Your task to perform on an android device: turn notification dots on Image 0: 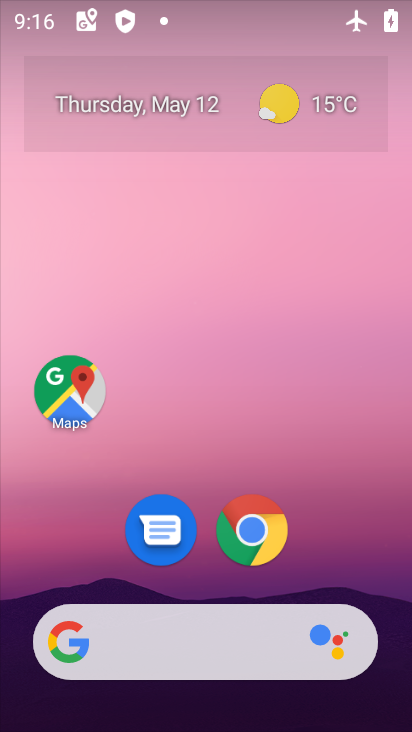
Step 0: drag from (218, 636) to (206, 92)
Your task to perform on an android device: turn notification dots on Image 1: 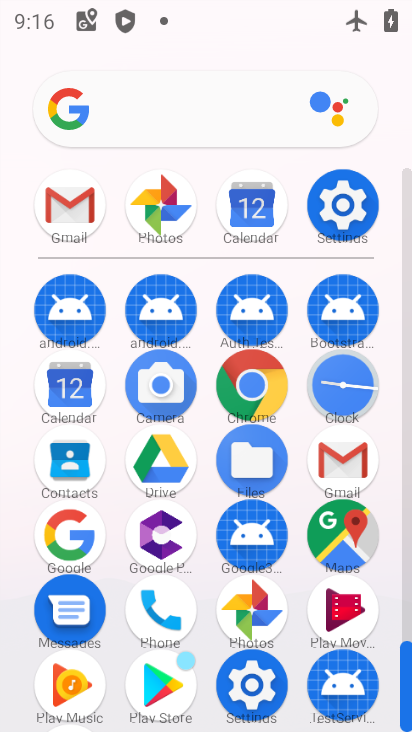
Step 1: click (355, 204)
Your task to perform on an android device: turn notification dots on Image 2: 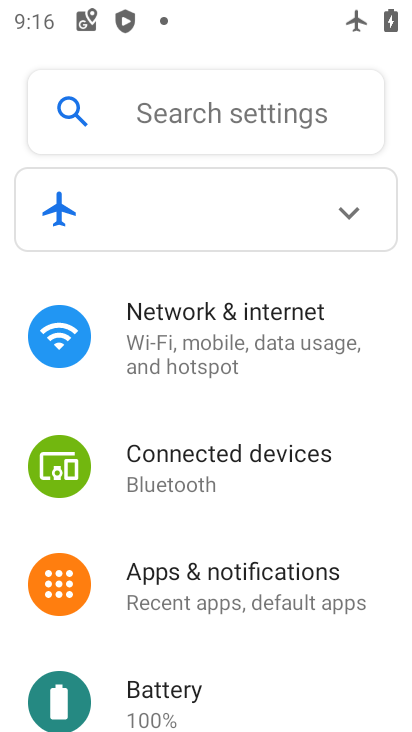
Step 2: click (259, 580)
Your task to perform on an android device: turn notification dots on Image 3: 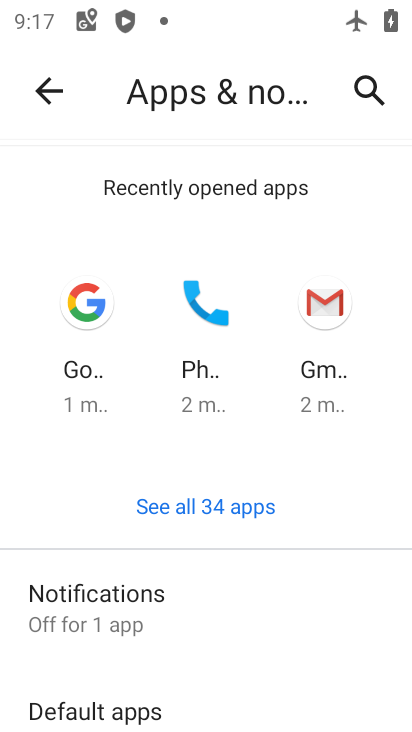
Step 3: click (184, 596)
Your task to perform on an android device: turn notification dots on Image 4: 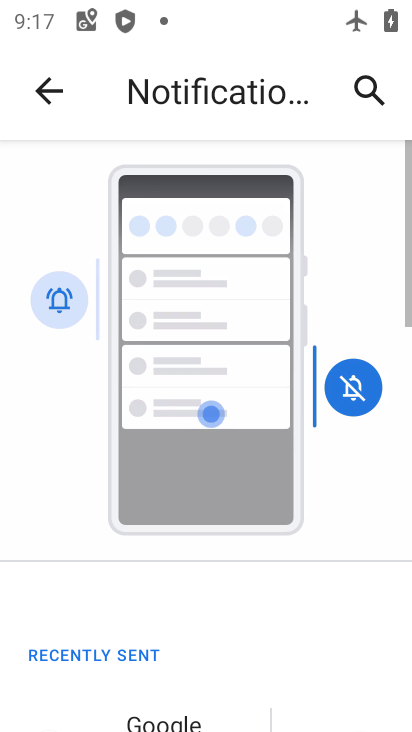
Step 4: drag from (265, 659) to (256, 51)
Your task to perform on an android device: turn notification dots on Image 5: 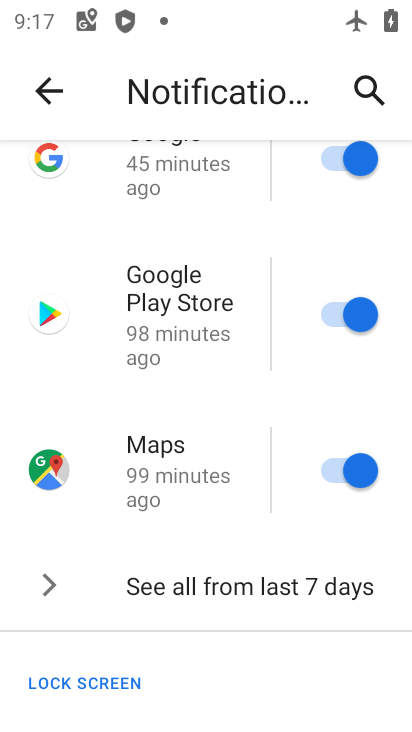
Step 5: drag from (242, 680) to (240, 61)
Your task to perform on an android device: turn notification dots on Image 6: 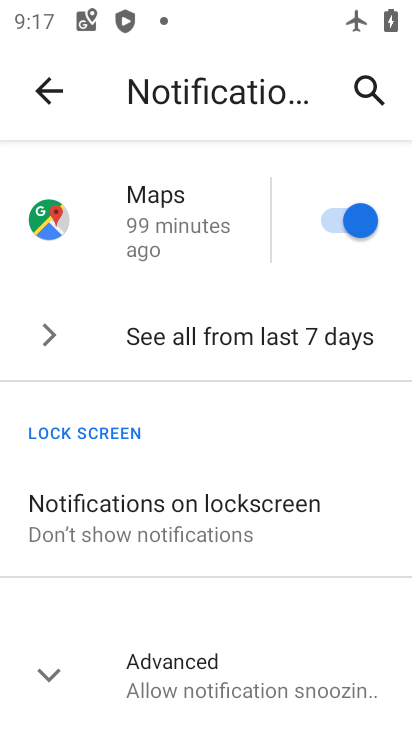
Step 6: click (231, 693)
Your task to perform on an android device: turn notification dots on Image 7: 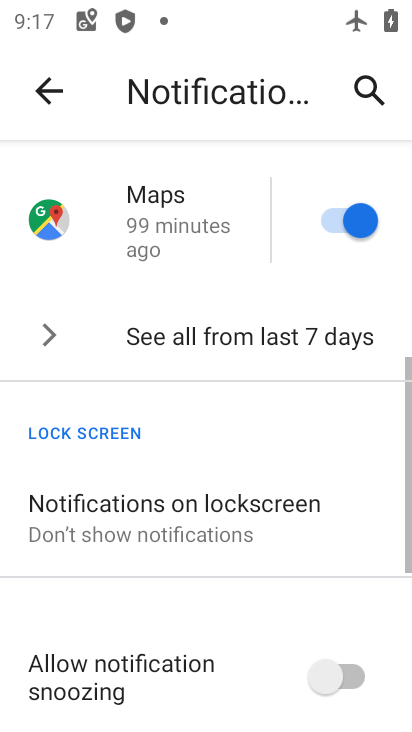
Step 7: task complete